Your task to perform on an android device: Go to settings Image 0: 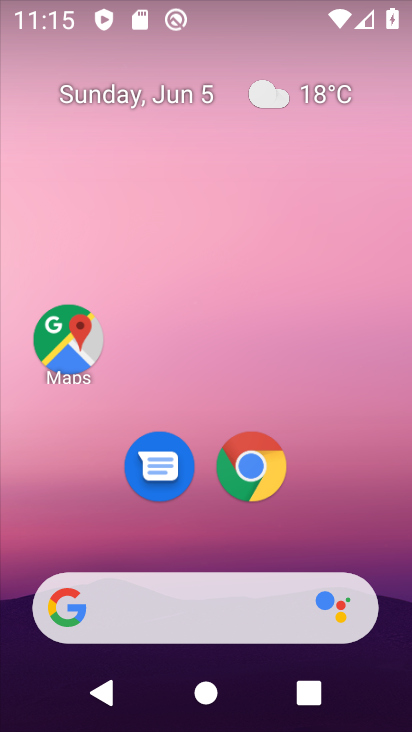
Step 0: drag from (371, 497) to (357, 77)
Your task to perform on an android device: Go to settings Image 1: 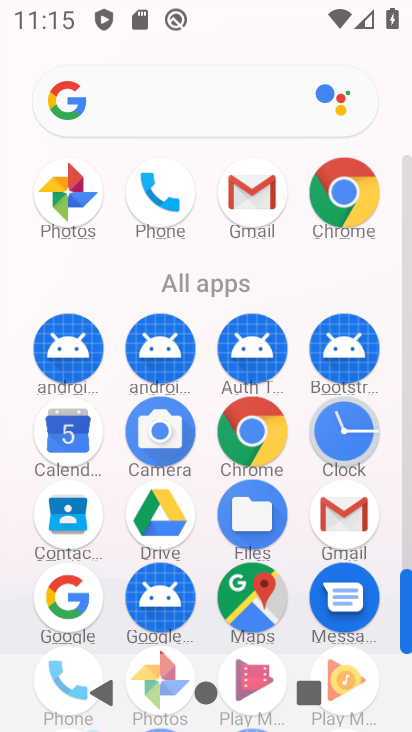
Step 1: drag from (200, 573) to (202, 256)
Your task to perform on an android device: Go to settings Image 2: 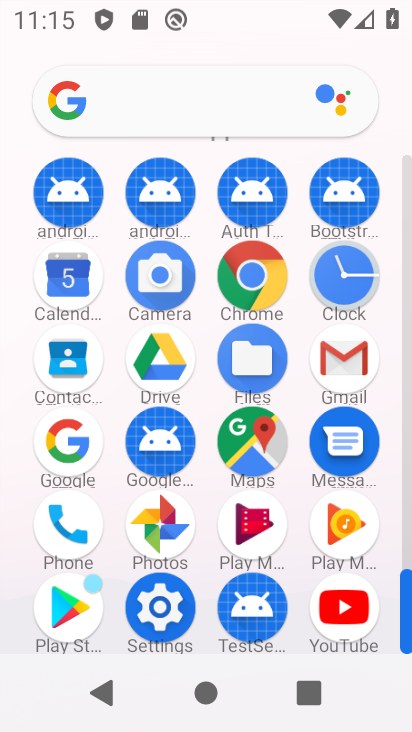
Step 2: click (156, 605)
Your task to perform on an android device: Go to settings Image 3: 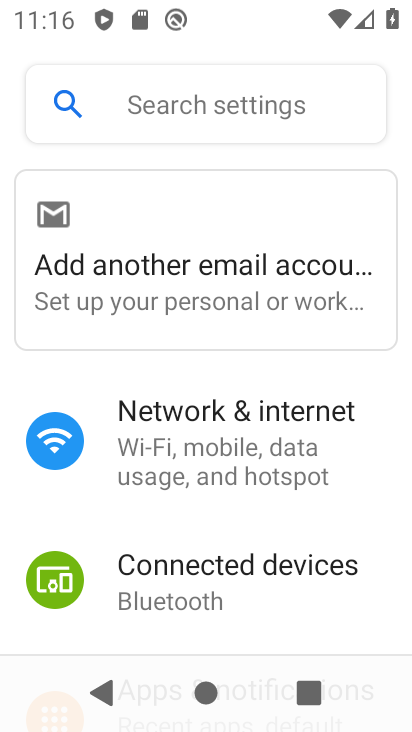
Step 3: task complete